Your task to perform on an android device: Open network settings Image 0: 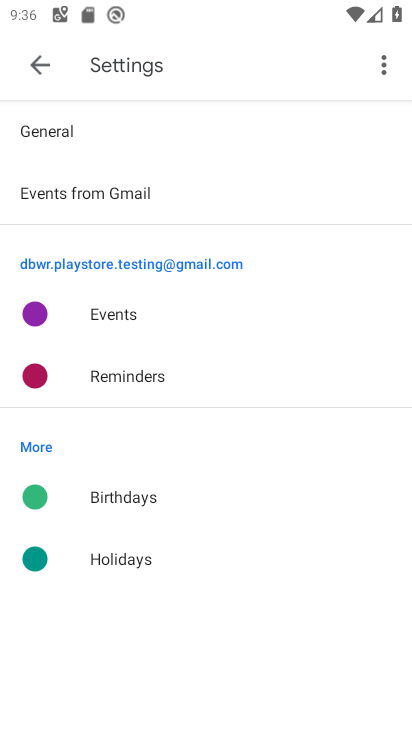
Step 0: press home button
Your task to perform on an android device: Open network settings Image 1: 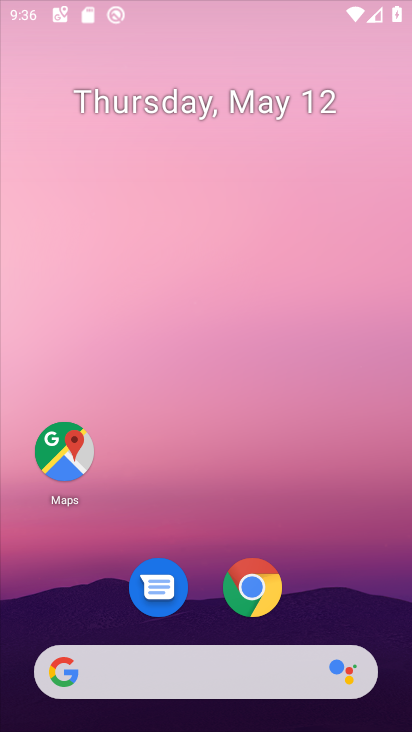
Step 1: drag from (190, 11) to (158, 590)
Your task to perform on an android device: Open network settings Image 2: 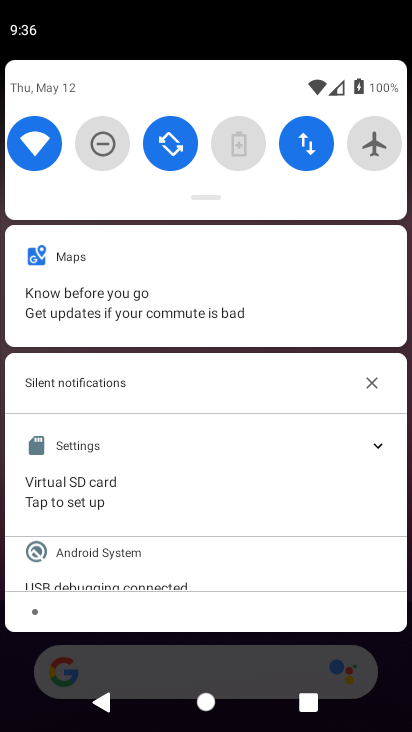
Step 2: drag from (158, 590) to (194, 0)
Your task to perform on an android device: Open network settings Image 3: 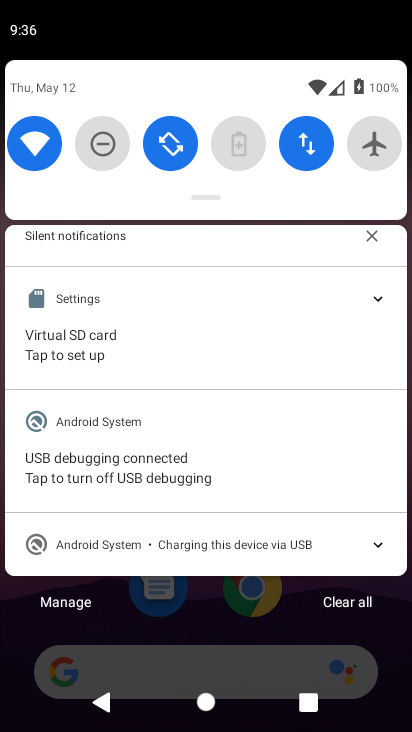
Step 3: drag from (403, 606) to (288, 13)
Your task to perform on an android device: Open network settings Image 4: 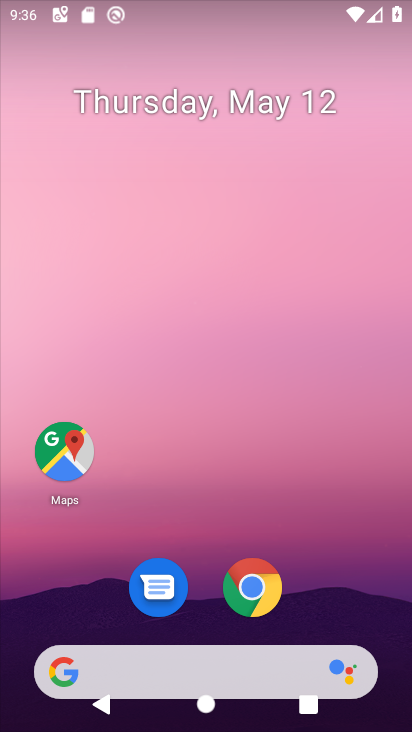
Step 4: drag from (365, 631) to (228, 3)
Your task to perform on an android device: Open network settings Image 5: 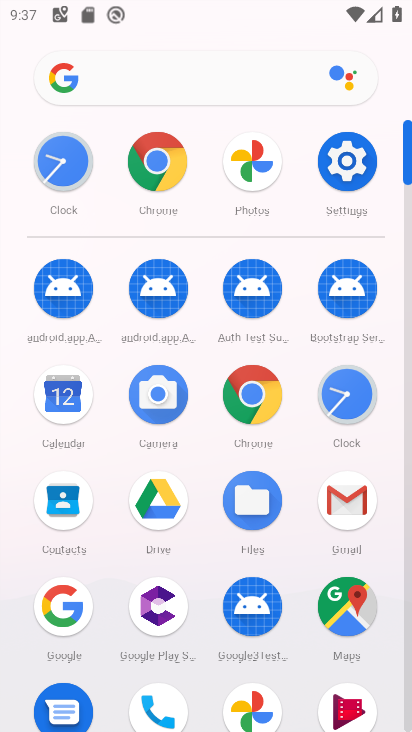
Step 5: click (347, 167)
Your task to perform on an android device: Open network settings Image 6: 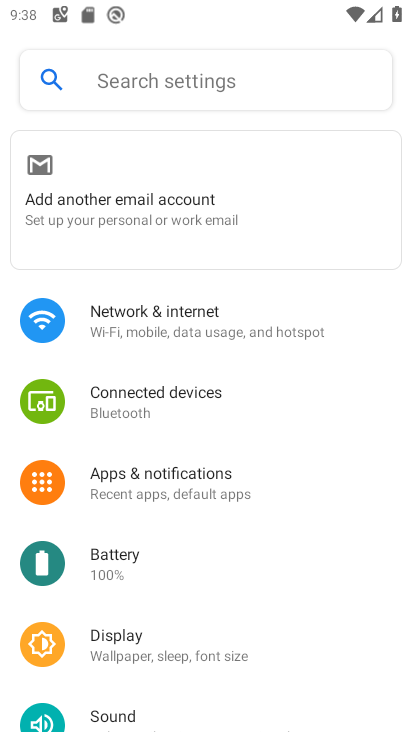
Step 6: click (138, 332)
Your task to perform on an android device: Open network settings Image 7: 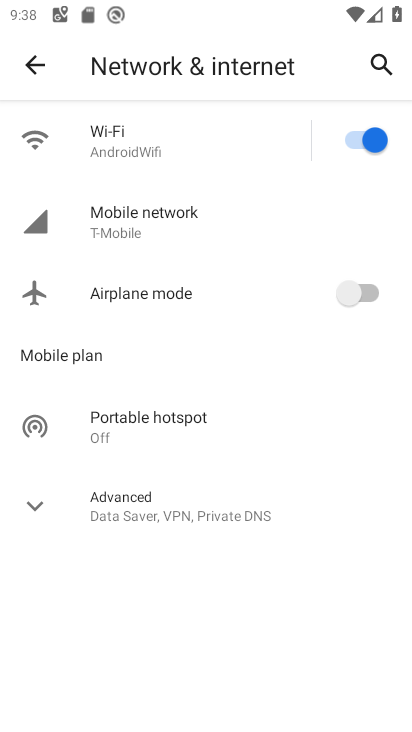
Step 7: task complete